Your task to perform on an android device: install app "PUBG MOBILE" Image 0: 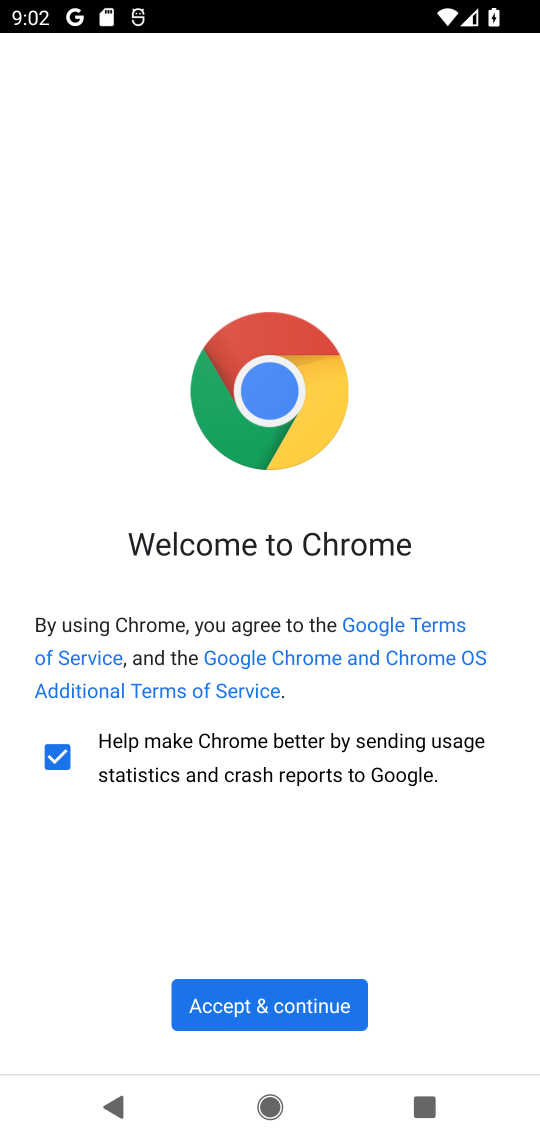
Step 0: press home button
Your task to perform on an android device: install app "PUBG MOBILE" Image 1: 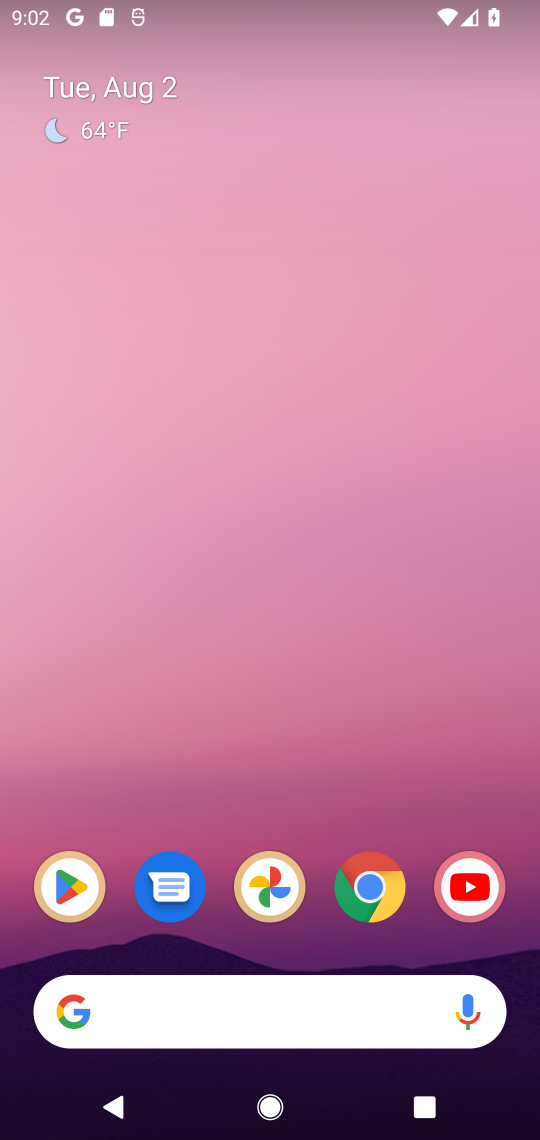
Step 1: click (70, 878)
Your task to perform on an android device: install app "PUBG MOBILE" Image 2: 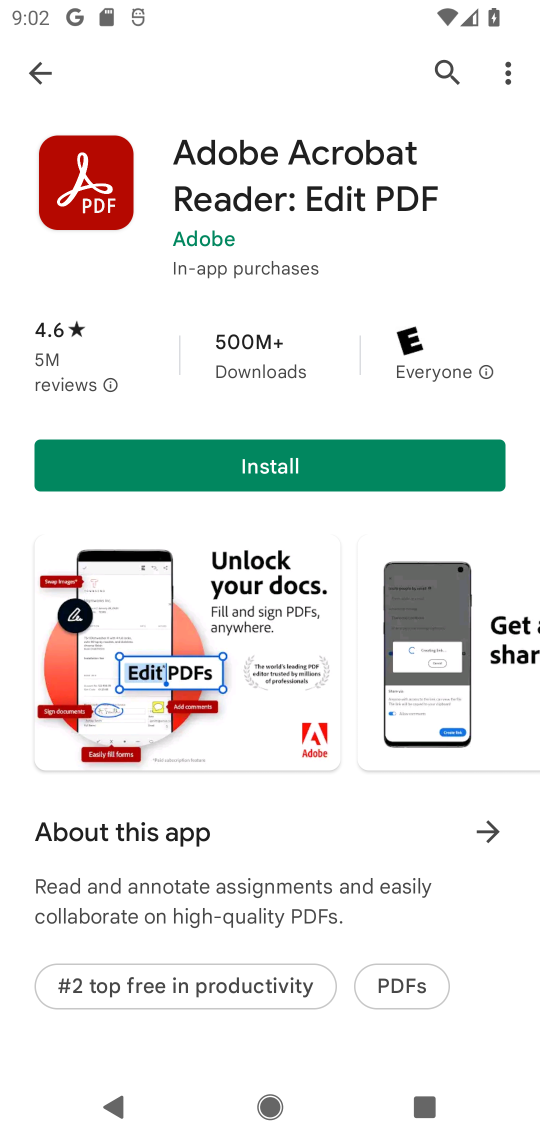
Step 2: click (427, 86)
Your task to perform on an android device: install app "PUBG MOBILE" Image 3: 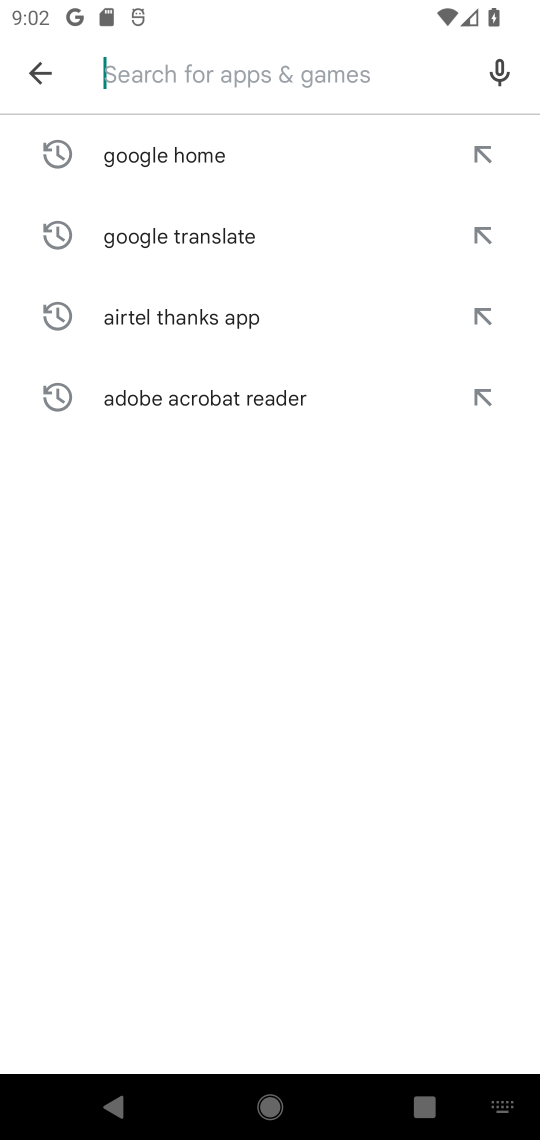
Step 3: type "pubg mobile"
Your task to perform on an android device: install app "PUBG MOBILE" Image 4: 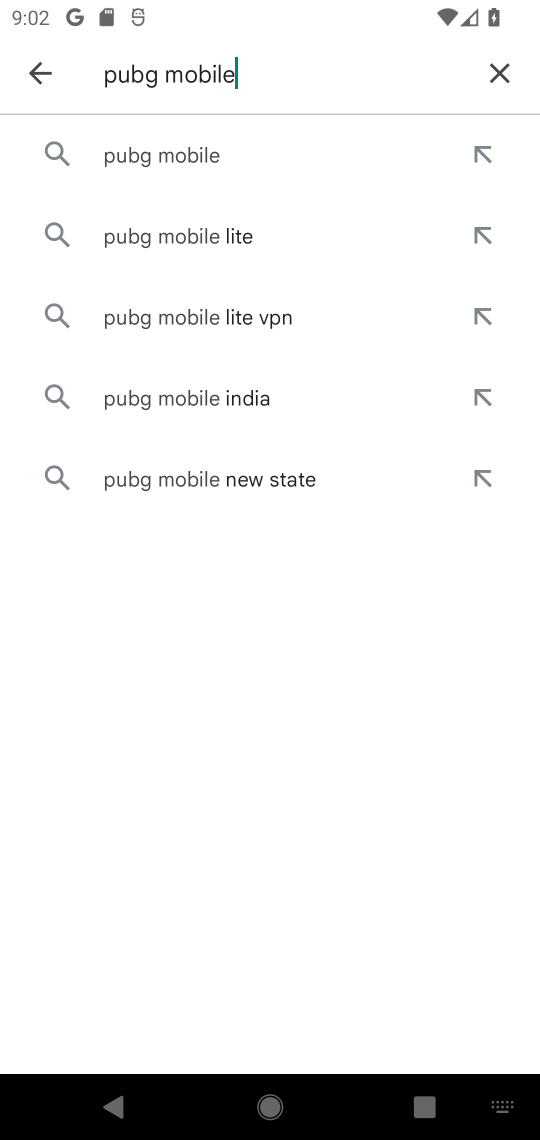
Step 4: click (149, 136)
Your task to perform on an android device: install app "PUBG MOBILE" Image 5: 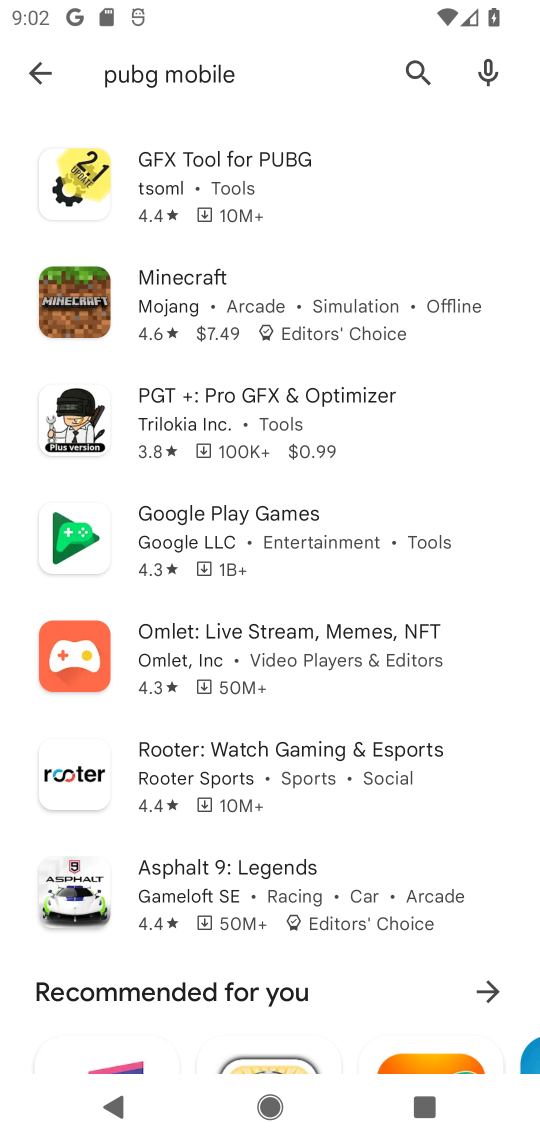
Step 5: task complete